Your task to perform on an android device: Go to network settings Image 0: 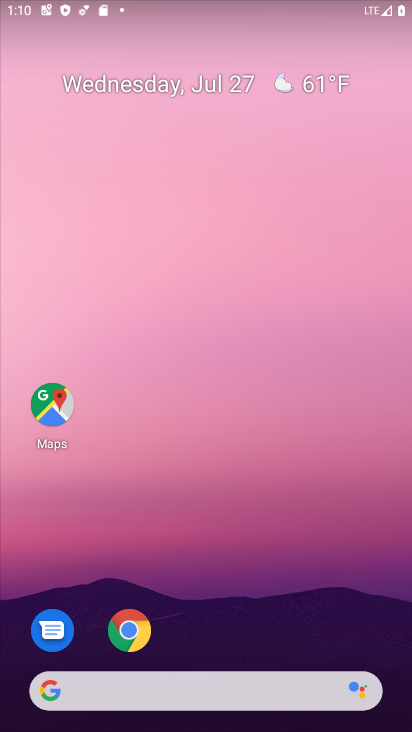
Step 0: drag from (217, 670) to (217, 331)
Your task to perform on an android device: Go to network settings Image 1: 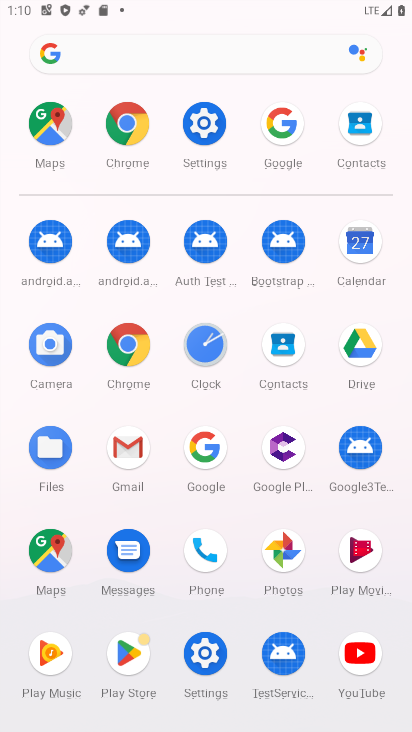
Step 1: click (203, 120)
Your task to perform on an android device: Go to network settings Image 2: 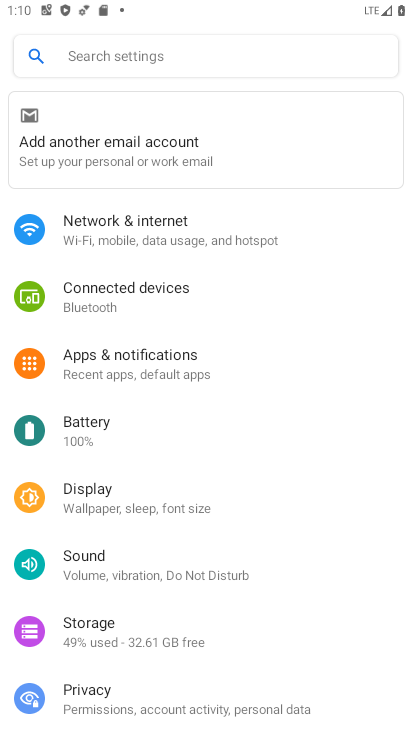
Step 2: click (87, 235)
Your task to perform on an android device: Go to network settings Image 3: 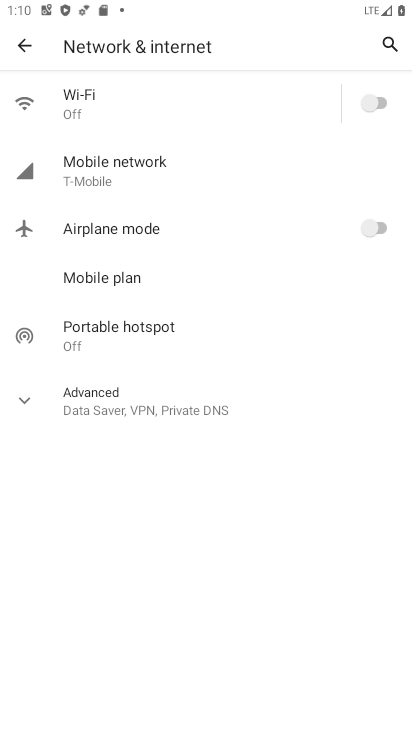
Step 3: click (88, 167)
Your task to perform on an android device: Go to network settings Image 4: 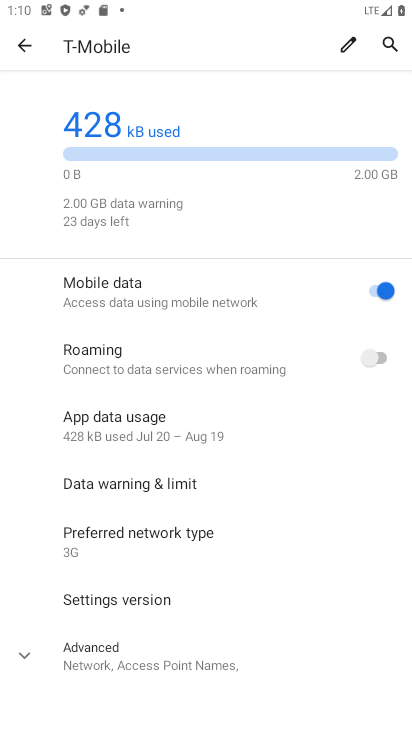
Step 4: click (98, 662)
Your task to perform on an android device: Go to network settings Image 5: 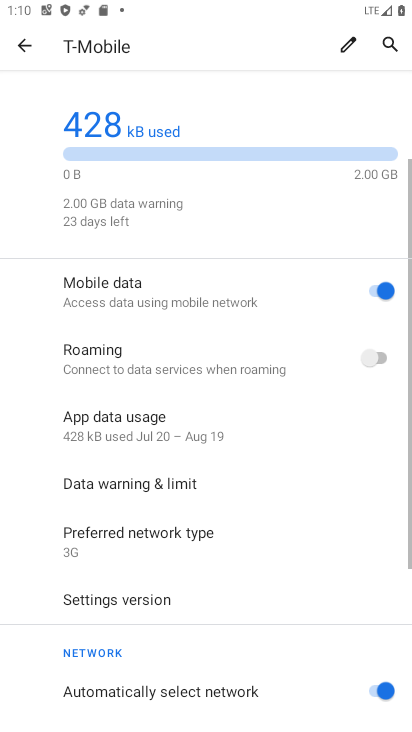
Step 5: task complete